Your task to perform on an android device: check google app version Image 0: 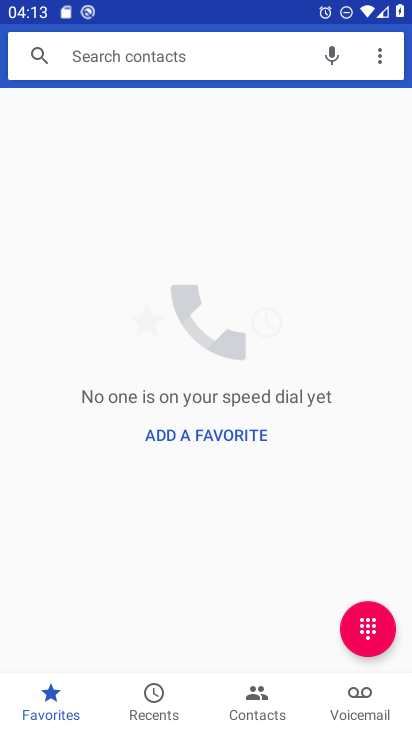
Step 0: drag from (209, 601) to (203, 538)
Your task to perform on an android device: check google app version Image 1: 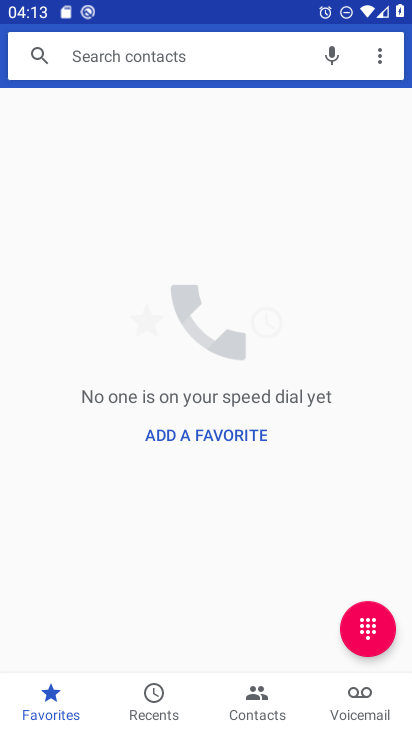
Step 1: press home button
Your task to perform on an android device: check google app version Image 2: 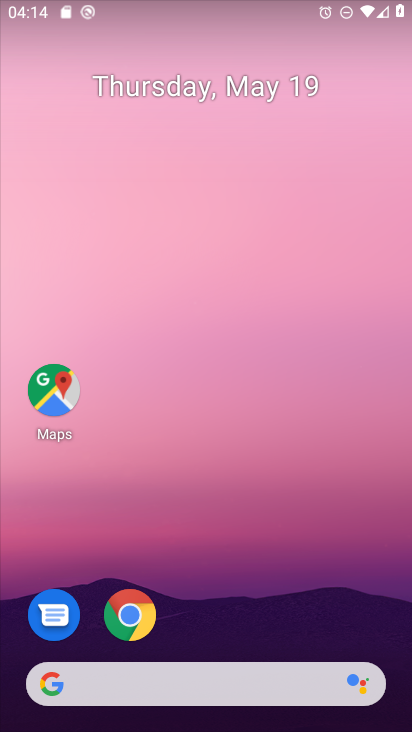
Step 2: click (141, 610)
Your task to perform on an android device: check google app version Image 3: 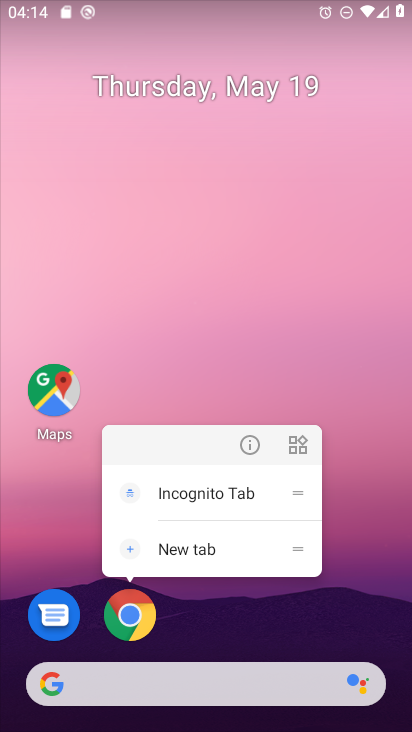
Step 3: click (251, 445)
Your task to perform on an android device: check google app version Image 4: 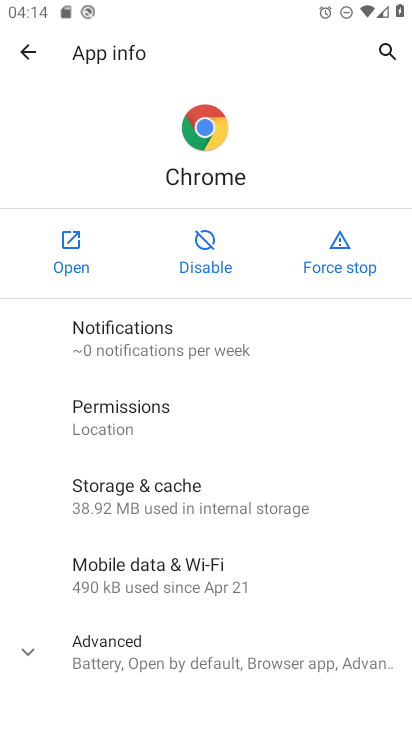
Step 4: drag from (273, 646) to (290, 50)
Your task to perform on an android device: check google app version Image 5: 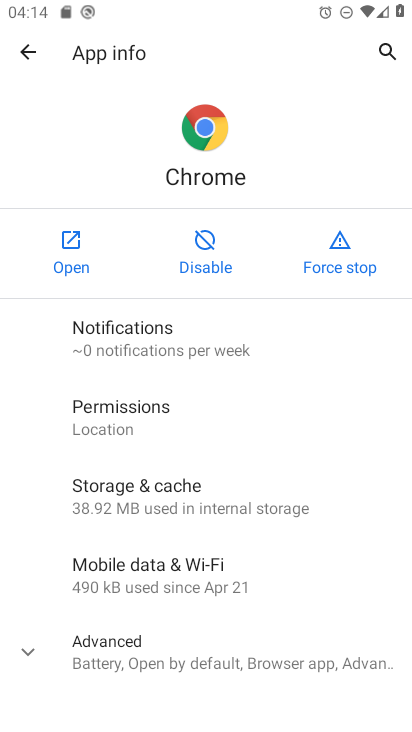
Step 5: click (253, 662)
Your task to perform on an android device: check google app version Image 6: 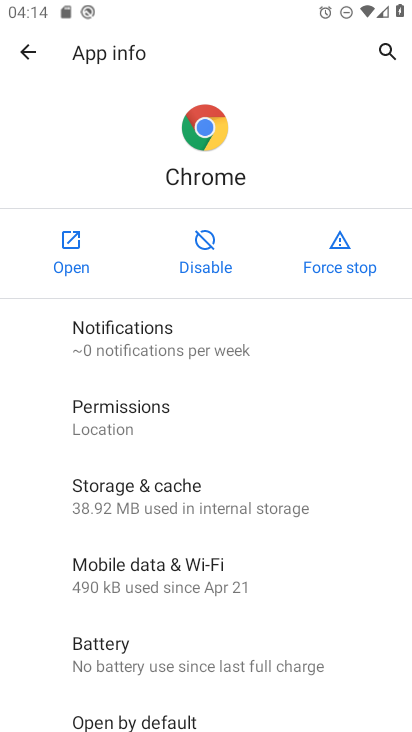
Step 6: task complete